Your task to perform on an android device: Open Google Chrome and open the bookmarks view Image 0: 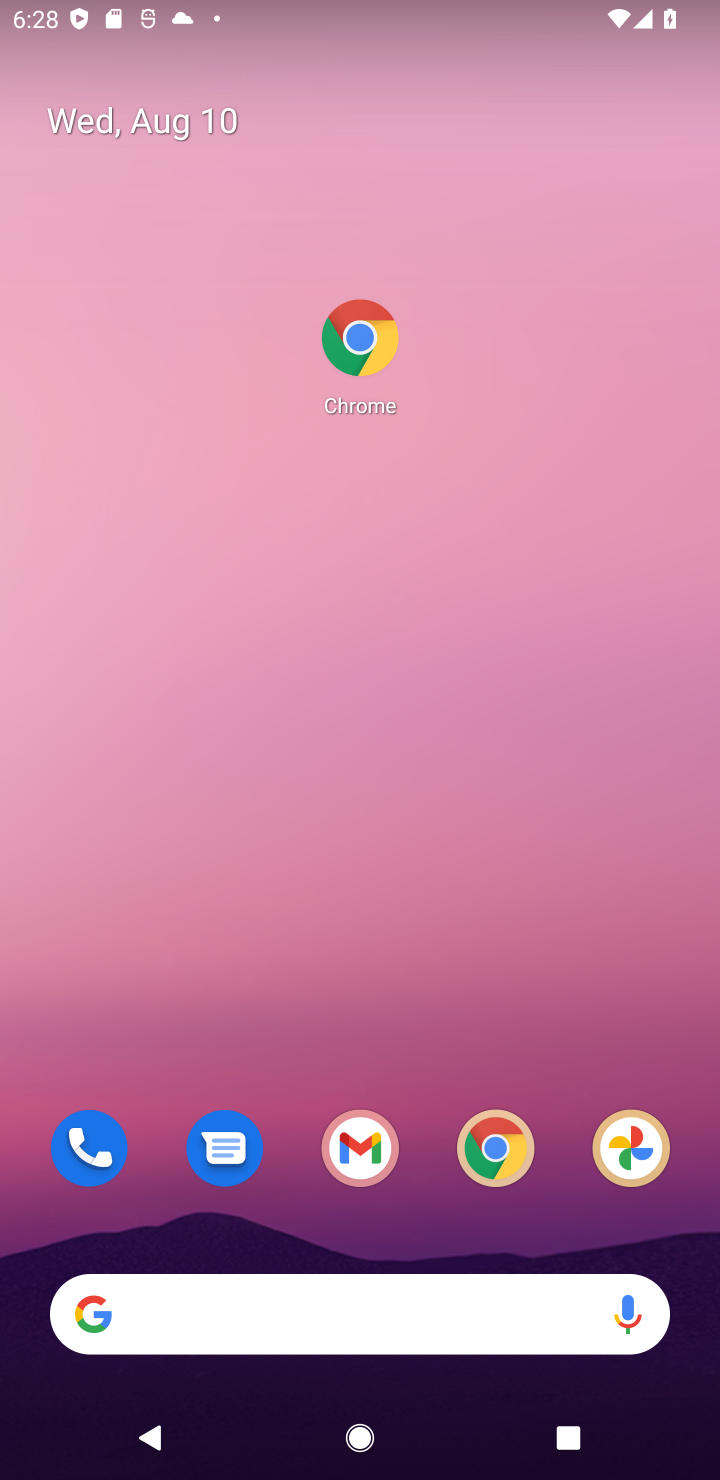
Step 0: click (481, 1165)
Your task to perform on an android device: Open Google Chrome and open the bookmarks view Image 1: 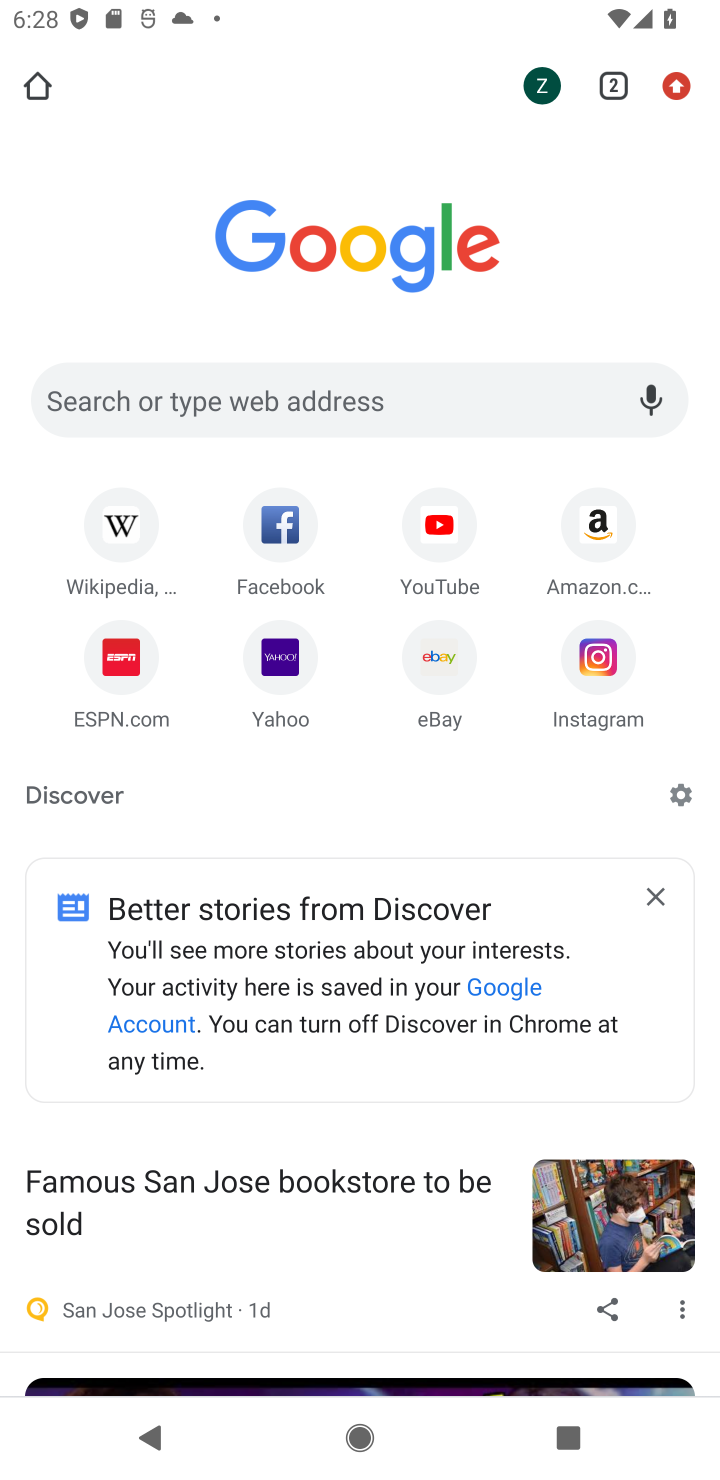
Step 1: click (678, 85)
Your task to perform on an android device: Open Google Chrome and open the bookmarks view Image 2: 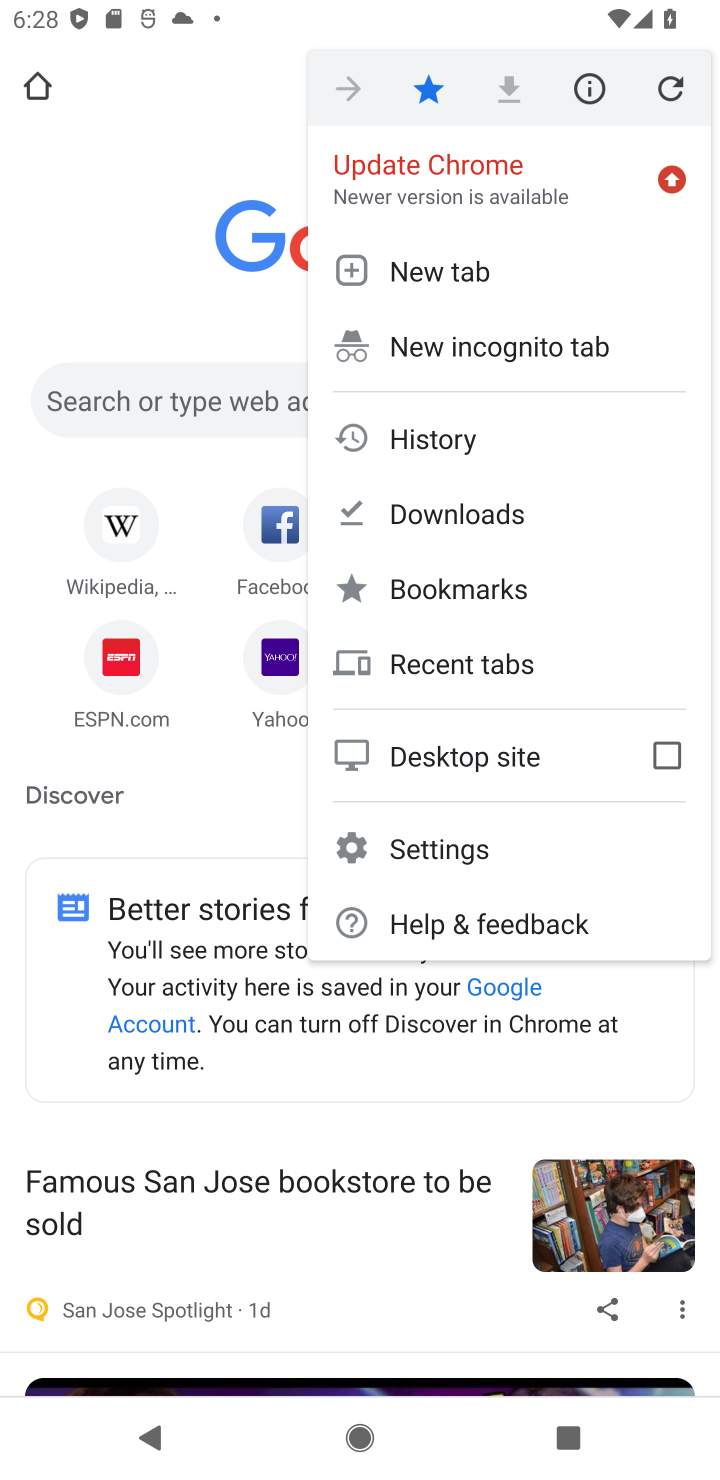
Step 2: click (462, 591)
Your task to perform on an android device: Open Google Chrome and open the bookmarks view Image 3: 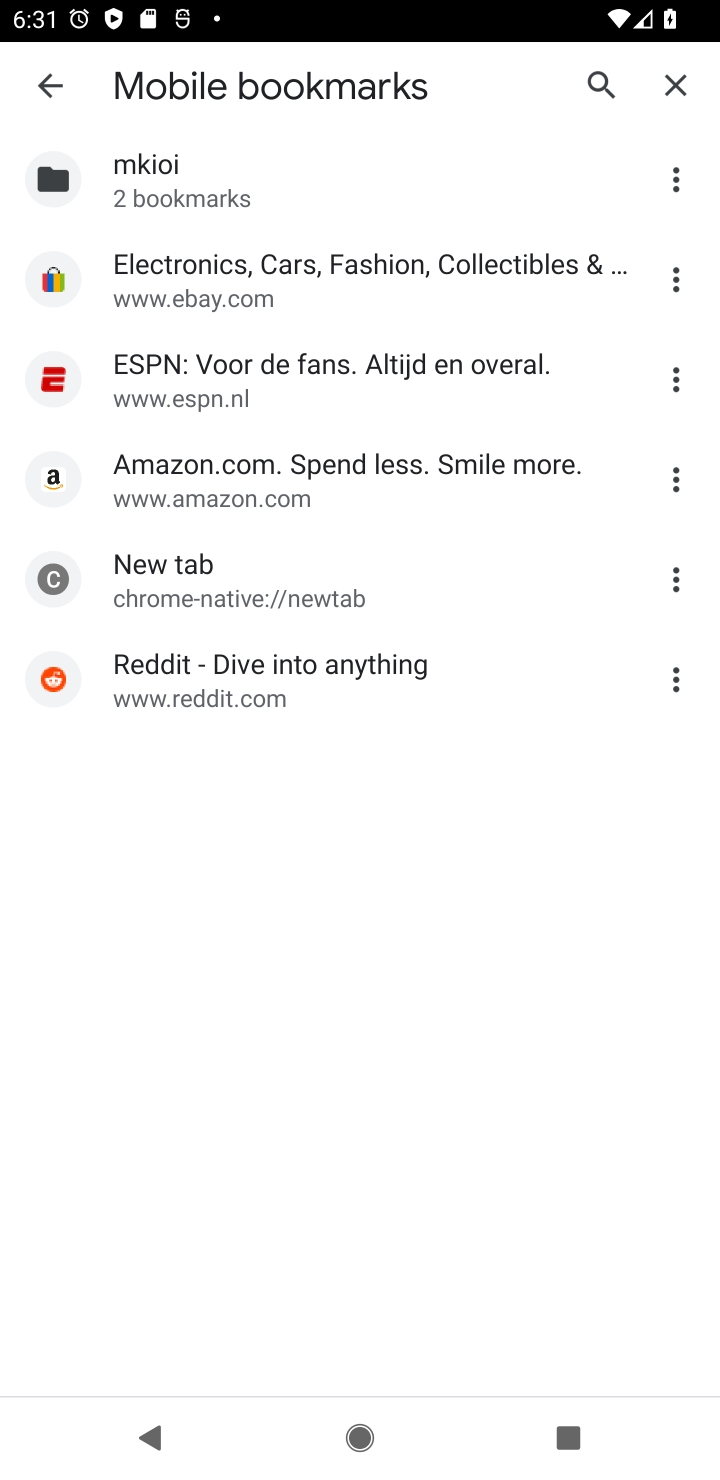
Step 3: task complete